Your task to perform on an android device: toggle wifi Image 0: 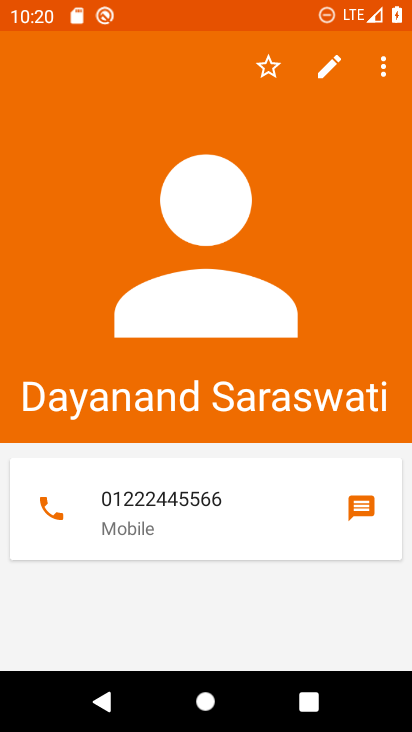
Step 0: press home button
Your task to perform on an android device: toggle wifi Image 1: 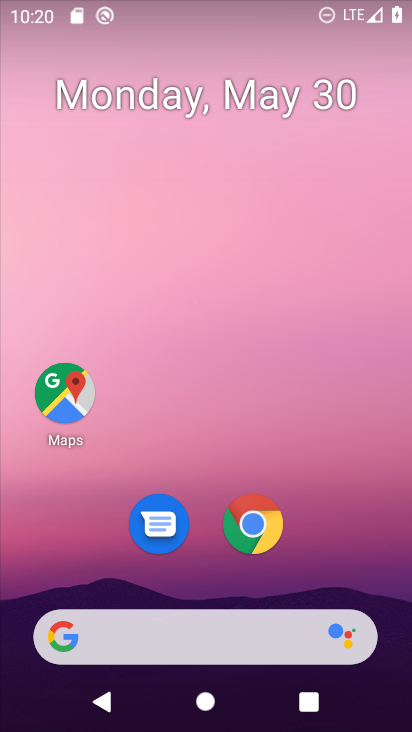
Step 1: drag from (310, 479) to (315, 29)
Your task to perform on an android device: toggle wifi Image 2: 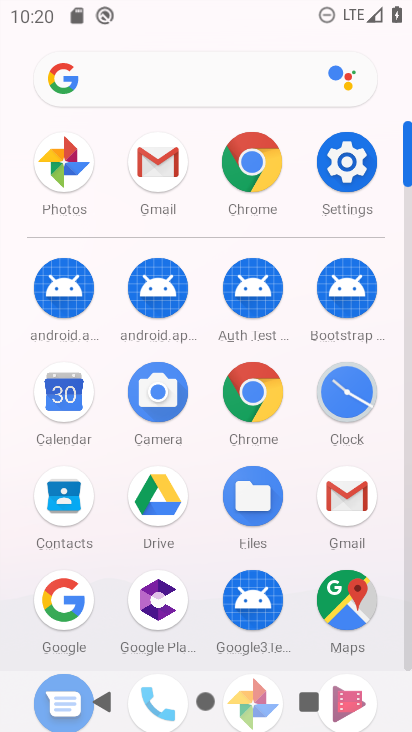
Step 2: click (342, 166)
Your task to perform on an android device: toggle wifi Image 3: 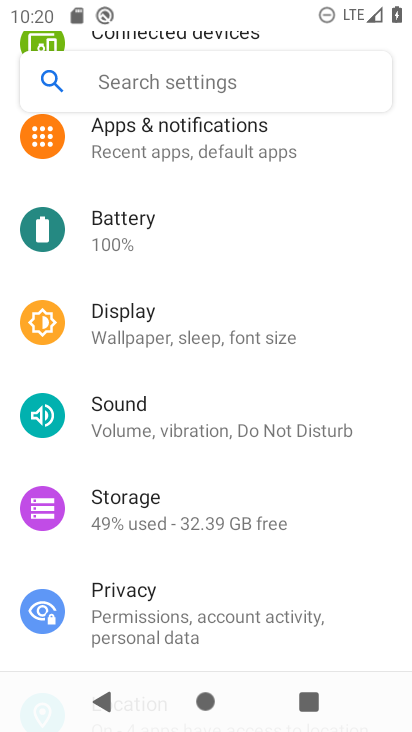
Step 3: drag from (207, 233) to (234, 532)
Your task to perform on an android device: toggle wifi Image 4: 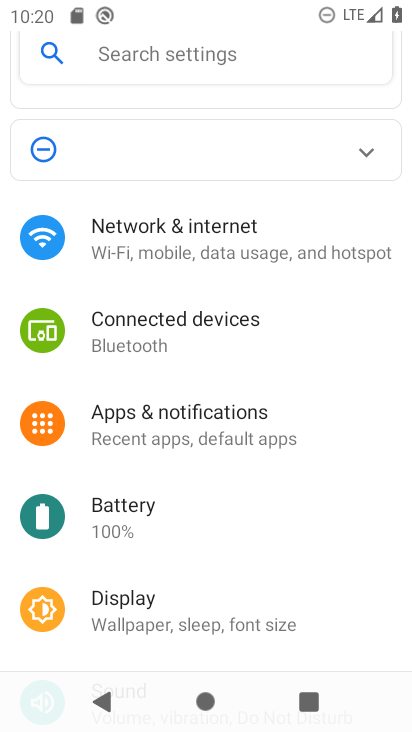
Step 4: click (203, 263)
Your task to perform on an android device: toggle wifi Image 5: 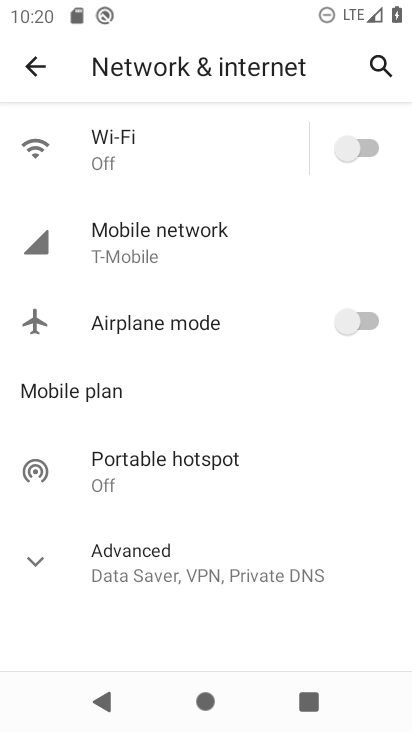
Step 5: click (197, 153)
Your task to perform on an android device: toggle wifi Image 6: 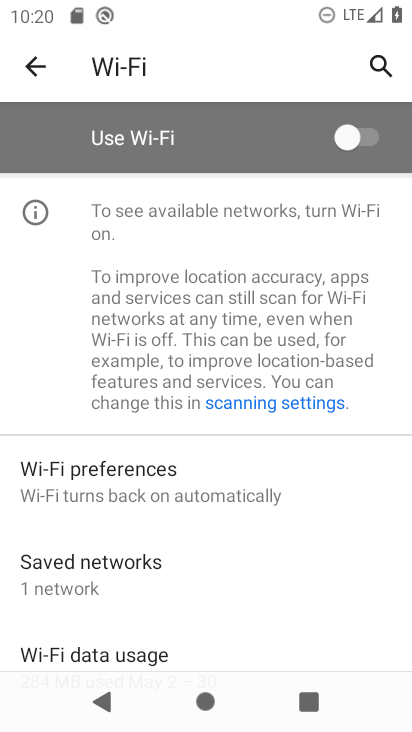
Step 6: click (364, 141)
Your task to perform on an android device: toggle wifi Image 7: 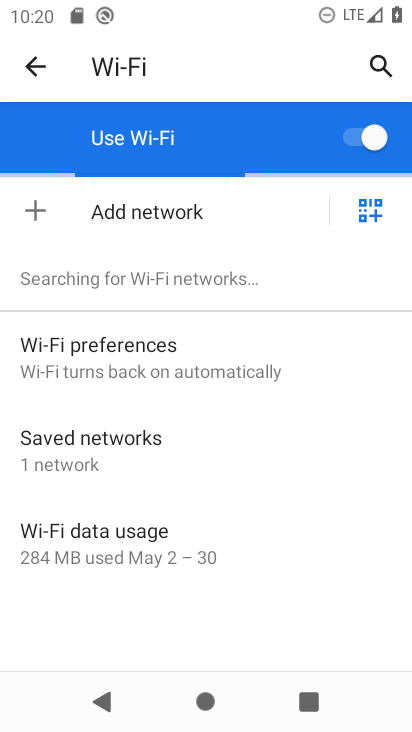
Step 7: task complete